Your task to perform on an android device: See recent photos Image 0: 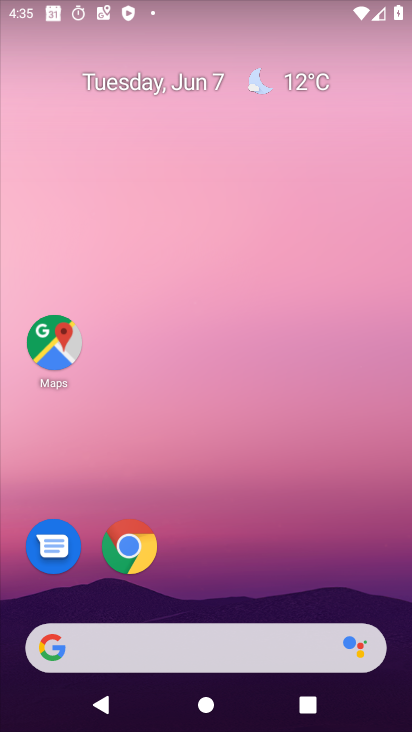
Step 0: drag from (180, 586) to (153, 0)
Your task to perform on an android device: See recent photos Image 1: 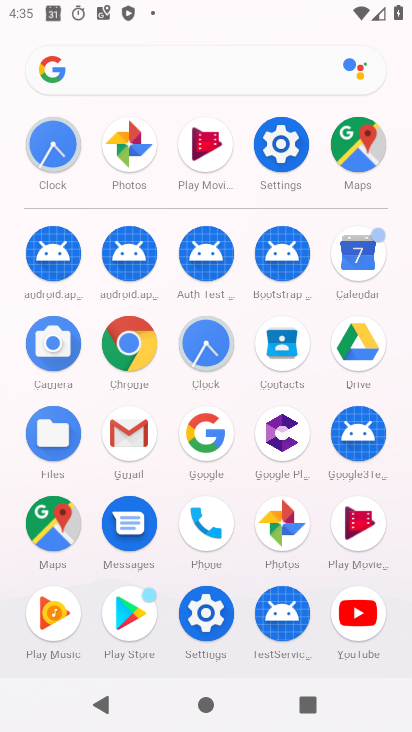
Step 1: click (111, 133)
Your task to perform on an android device: See recent photos Image 2: 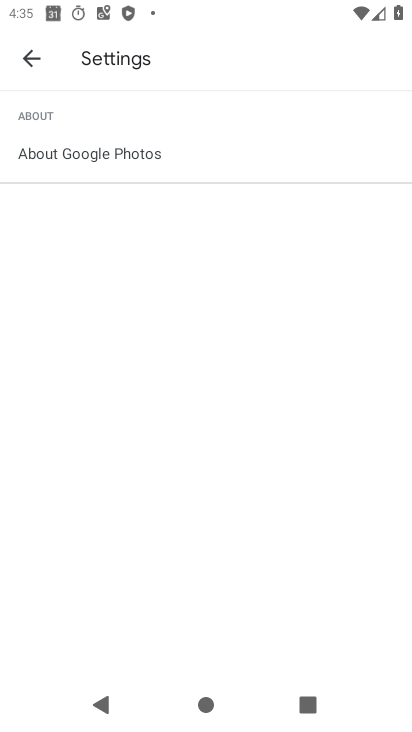
Step 2: click (36, 50)
Your task to perform on an android device: See recent photos Image 3: 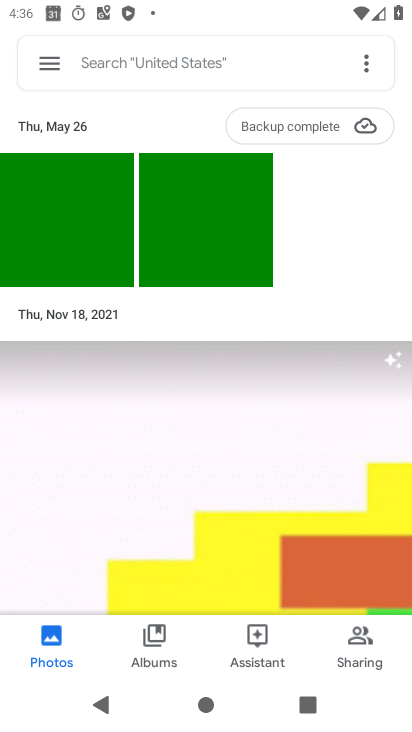
Step 3: task complete